Your task to perform on an android device: Go to Reddit.com Image 0: 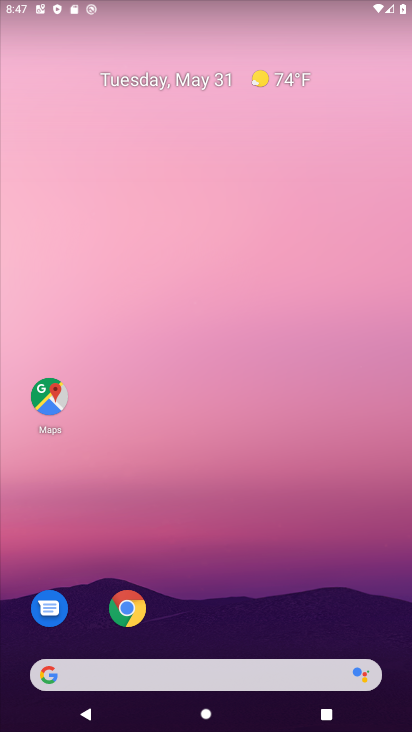
Step 0: drag from (231, 649) to (169, 178)
Your task to perform on an android device: Go to Reddit.com Image 1: 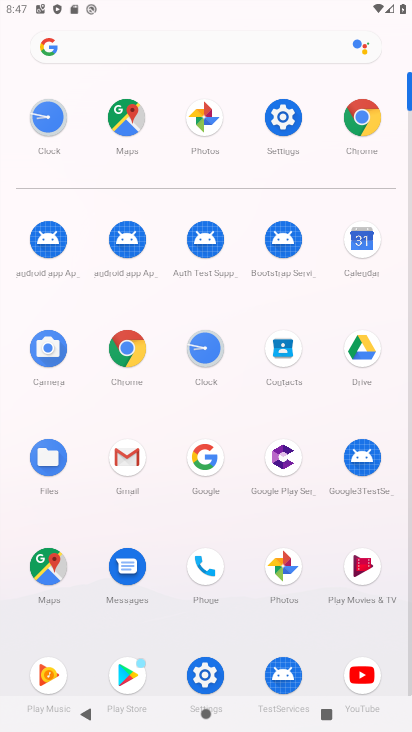
Step 1: click (131, 361)
Your task to perform on an android device: Go to Reddit.com Image 2: 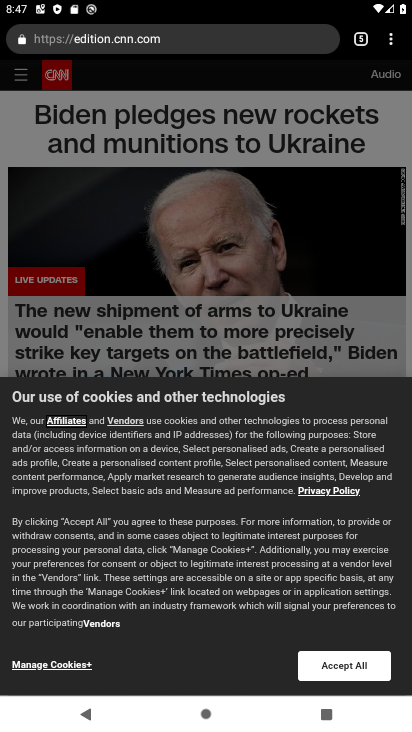
Step 2: click (366, 47)
Your task to perform on an android device: Go to Reddit.com Image 3: 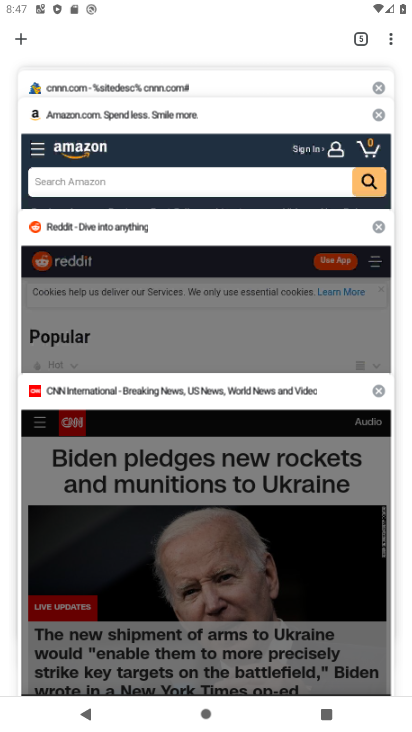
Step 3: click (22, 39)
Your task to perform on an android device: Go to Reddit.com Image 4: 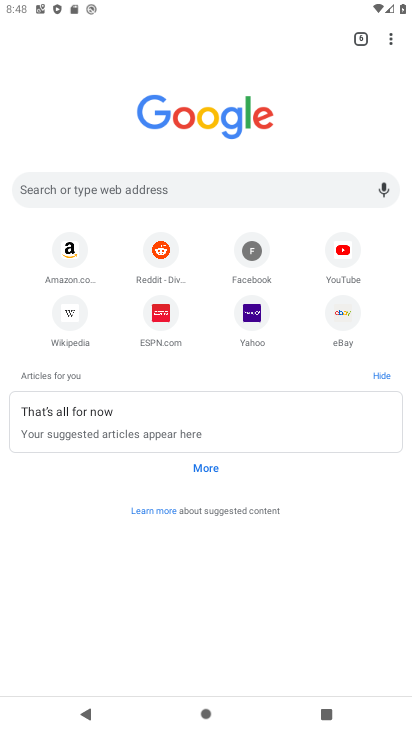
Step 4: click (165, 244)
Your task to perform on an android device: Go to Reddit.com Image 5: 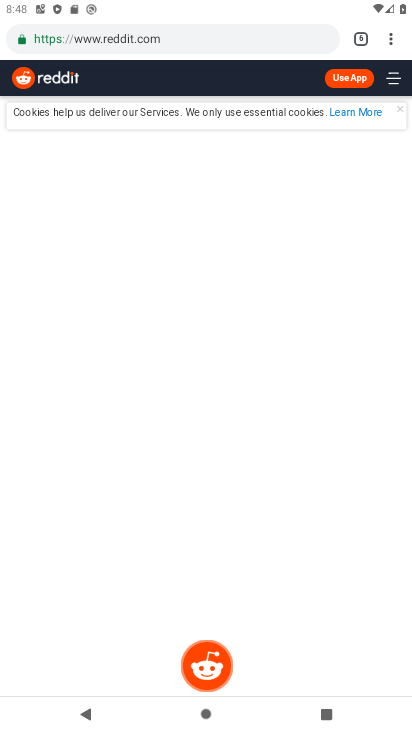
Step 5: task complete